Your task to perform on an android device: turn on translation in the chrome app Image 0: 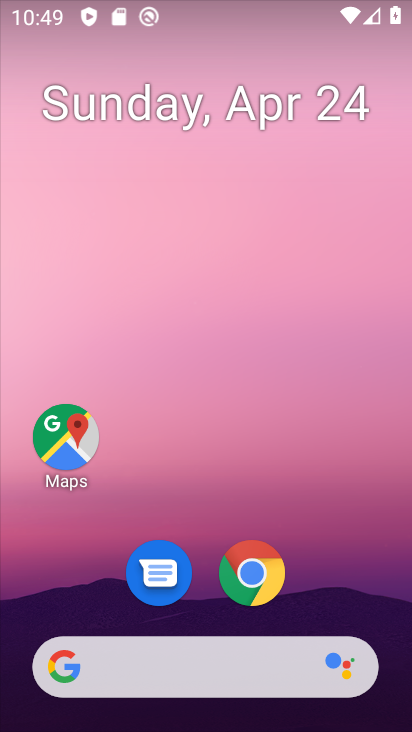
Step 0: click (239, 549)
Your task to perform on an android device: turn on translation in the chrome app Image 1: 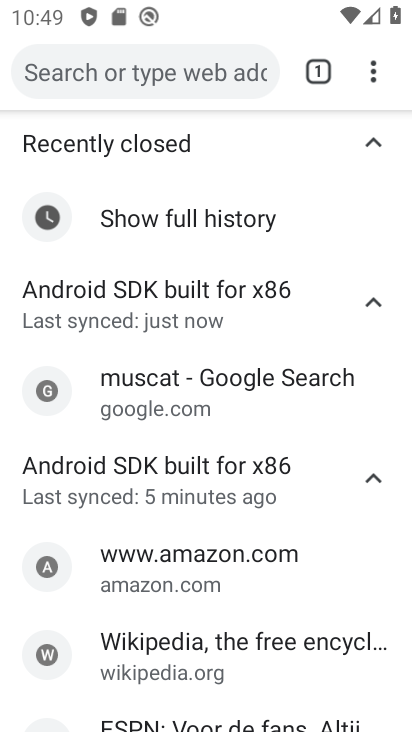
Step 1: click (382, 74)
Your task to perform on an android device: turn on translation in the chrome app Image 2: 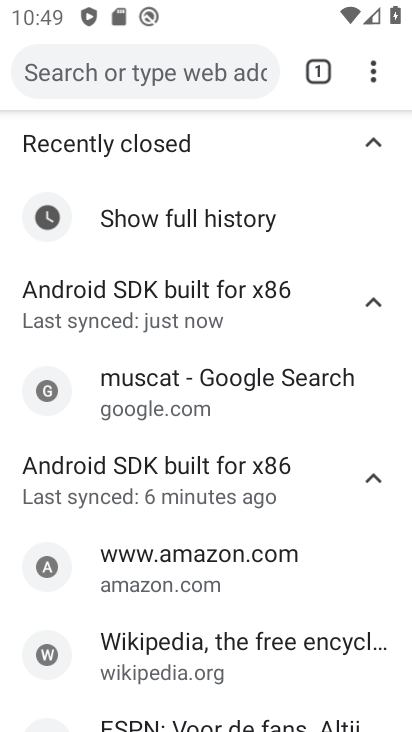
Step 2: click (374, 68)
Your task to perform on an android device: turn on translation in the chrome app Image 3: 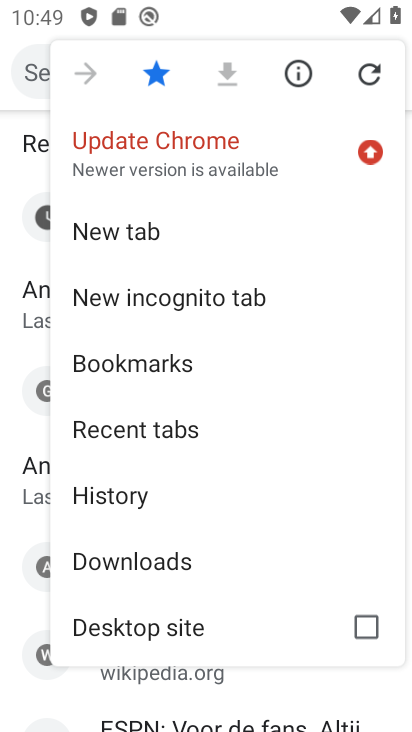
Step 3: drag from (137, 605) to (145, 382)
Your task to perform on an android device: turn on translation in the chrome app Image 4: 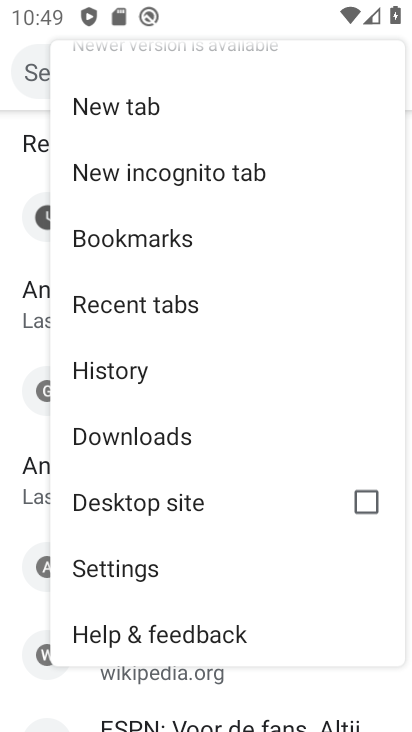
Step 4: click (136, 577)
Your task to perform on an android device: turn on translation in the chrome app Image 5: 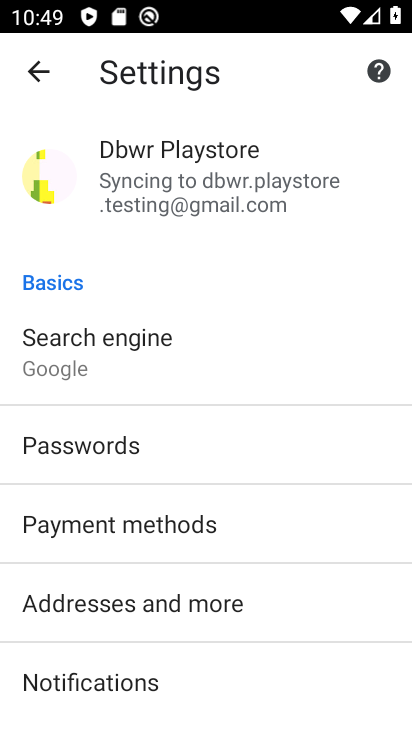
Step 5: drag from (102, 595) to (123, 382)
Your task to perform on an android device: turn on translation in the chrome app Image 6: 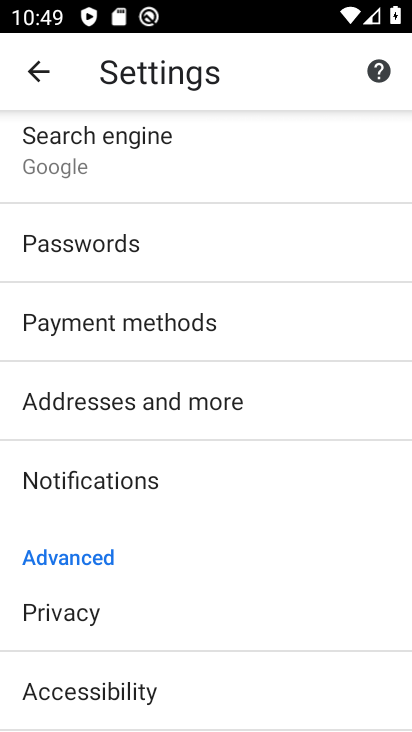
Step 6: drag from (157, 595) to (198, 464)
Your task to perform on an android device: turn on translation in the chrome app Image 7: 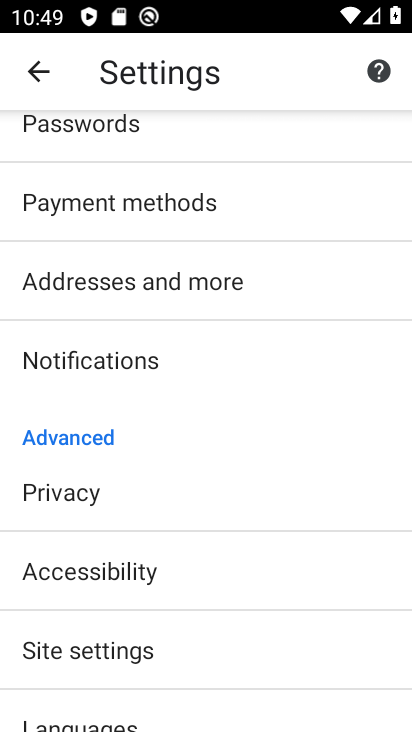
Step 7: drag from (165, 581) to (184, 450)
Your task to perform on an android device: turn on translation in the chrome app Image 8: 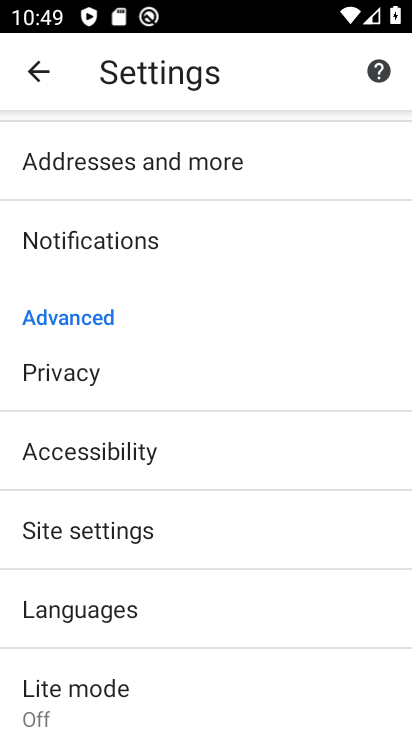
Step 8: click (146, 606)
Your task to perform on an android device: turn on translation in the chrome app Image 9: 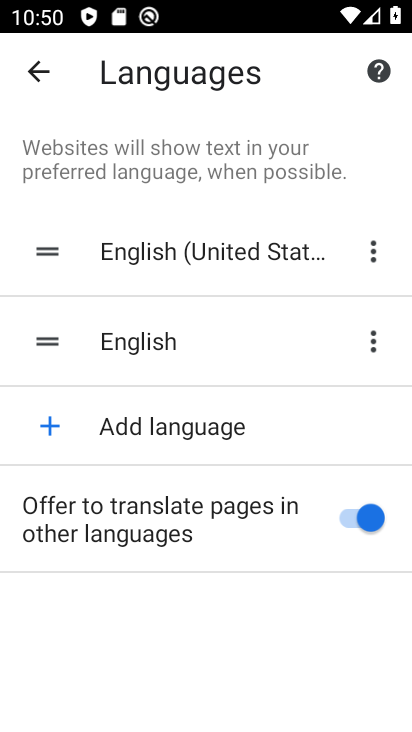
Step 9: task complete